Your task to perform on an android device: toggle show notifications on the lock screen Image 0: 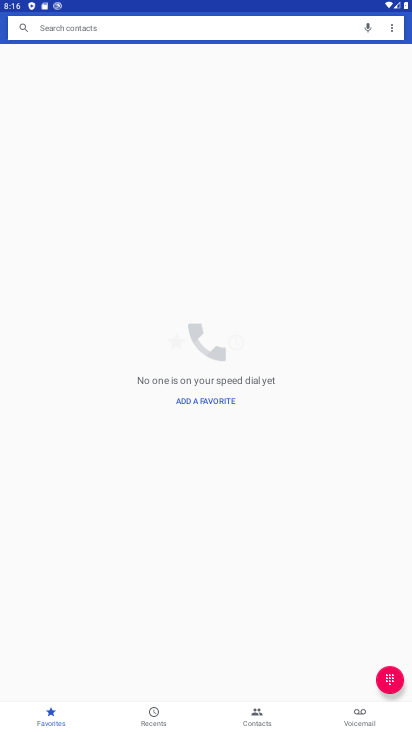
Step 0: press home button
Your task to perform on an android device: toggle show notifications on the lock screen Image 1: 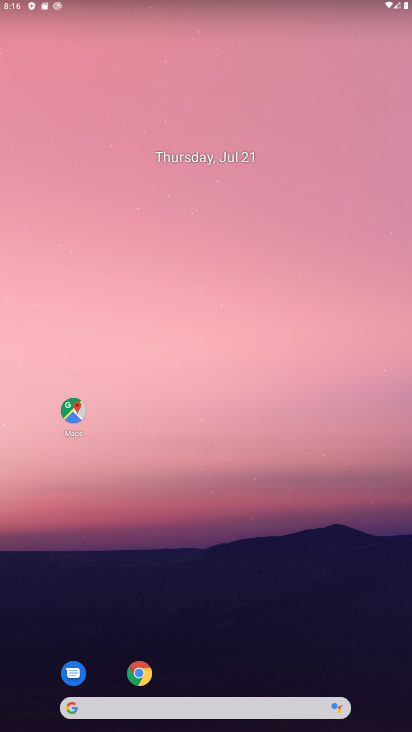
Step 1: drag from (193, 665) to (193, 289)
Your task to perform on an android device: toggle show notifications on the lock screen Image 2: 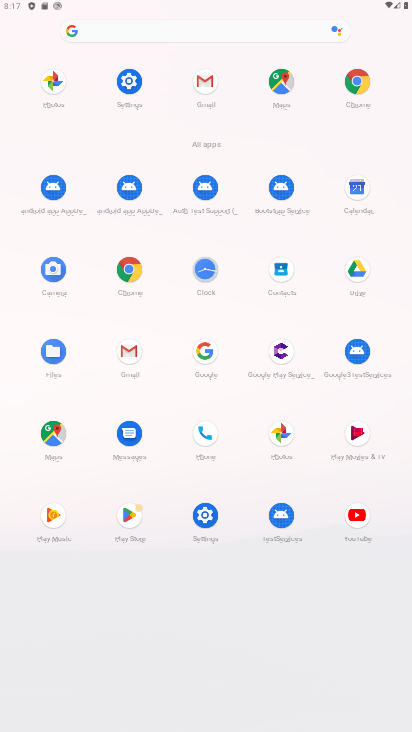
Step 2: click (114, 98)
Your task to perform on an android device: toggle show notifications on the lock screen Image 3: 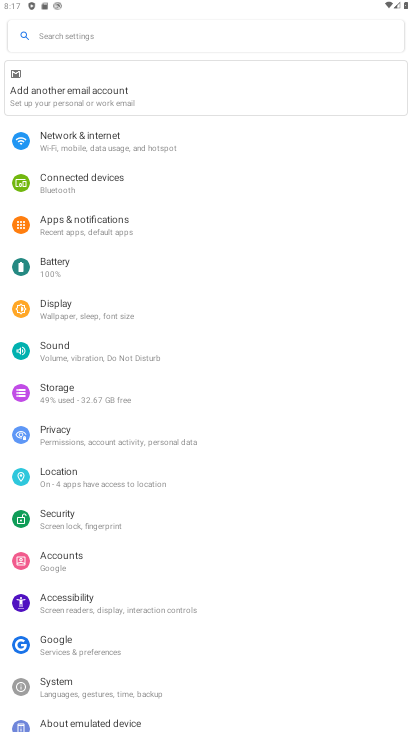
Step 3: click (143, 229)
Your task to perform on an android device: toggle show notifications on the lock screen Image 4: 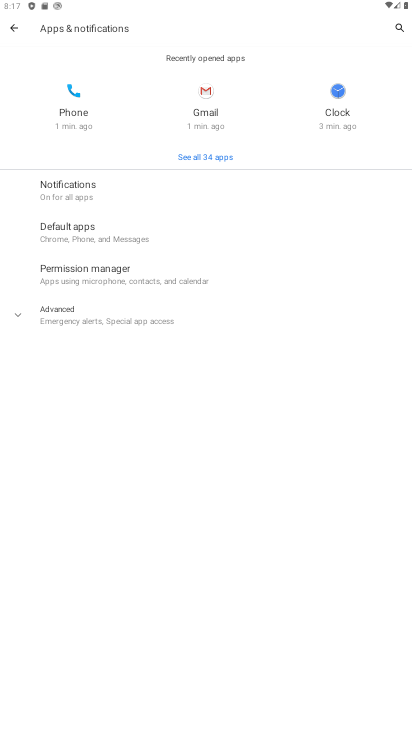
Step 4: click (122, 195)
Your task to perform on an android device: toggle show notifications on the lock screen Image 5: 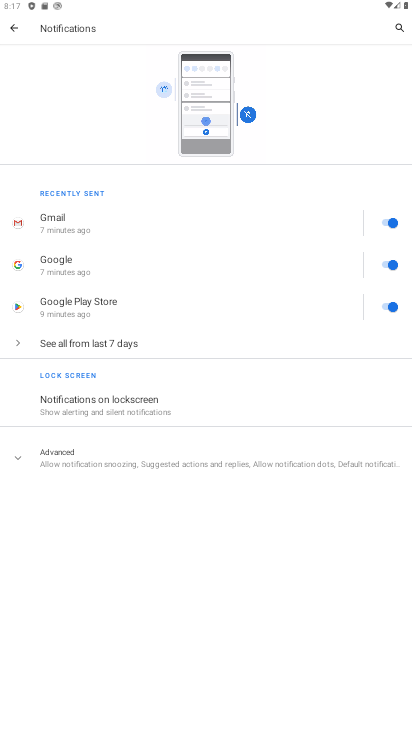
Step 5: click (161, 419)
Your task to perform on an android device: toggle show notifications on the lock screen Image 6: 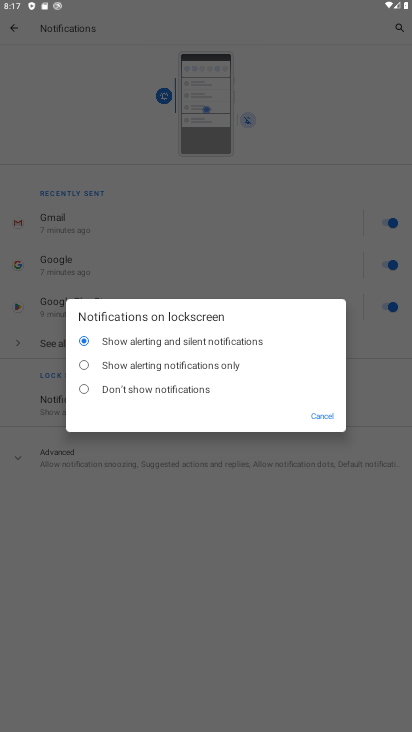
Step 6: click (121, 394)
Your task to perform on an android device: toggle show notifications on the lock screen Image 7: 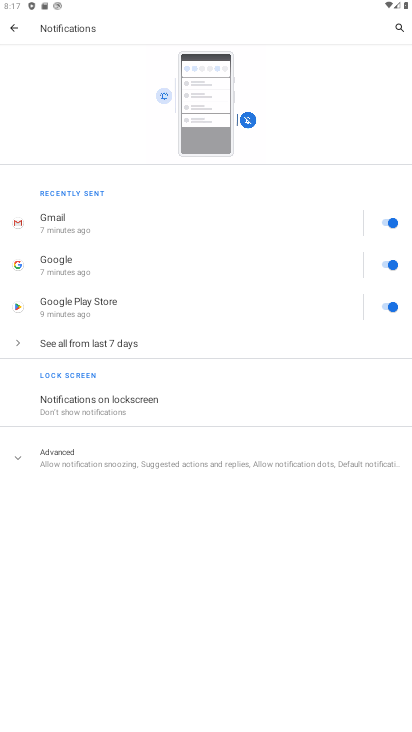
Step 7: task complete